Your task to perform on an android device: Open Wikipedia Image 0: 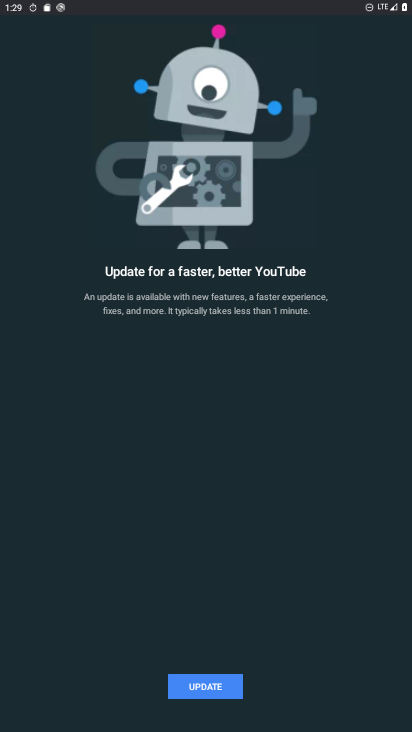
Step 0: press home button
Your task to perform on an android device: Open Wikipedia Image 1: 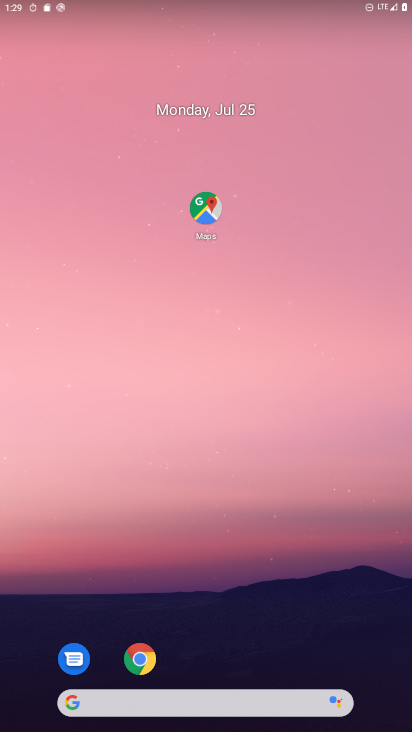
Step 1: click (134, 703)
Your task to perform on an android device: Open Wikipedia Image 2: 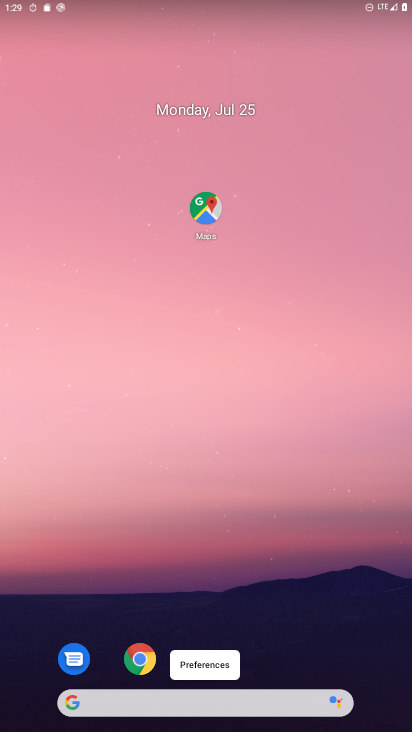
Step 2: click (123, 696)
Your task to perform on an android device: Open Wikipedia Image 3: 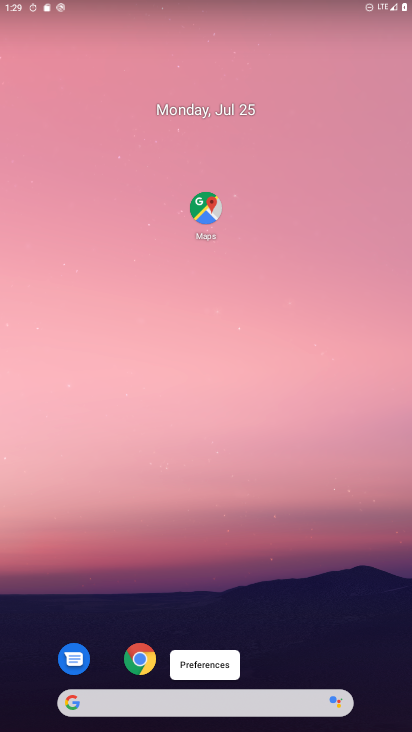
Step 3: click (115, 697)
Your task to perform on an android device: Open Wikipedia Image 4: 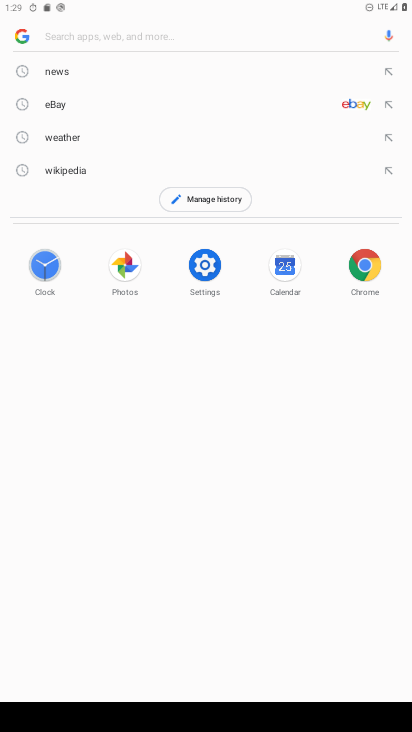
Step 4: click (69, 171)
Your task to perform on an android device: Open Wikipedia Image 5: 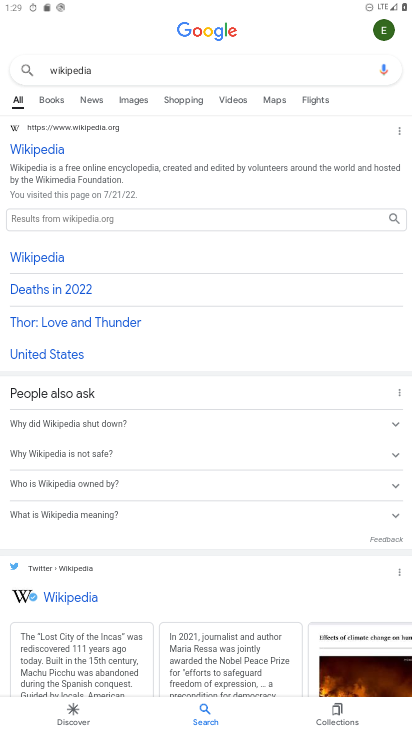
Step 5: task complete